Your task to perform on an android device: Open Wikipedia Image 0: 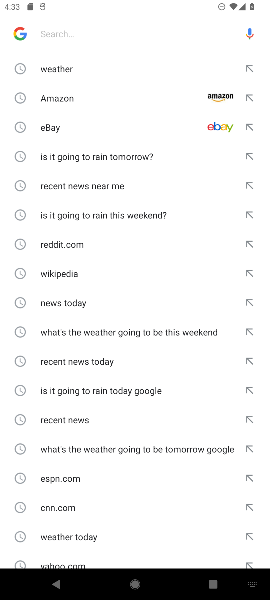
Step 0: press home button
Your task to perform on an android device: Open Wikipedia Image 1: 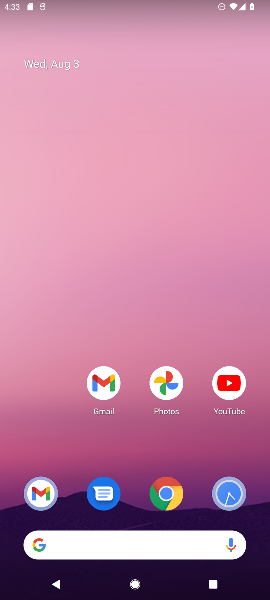
Step 1: drag from (37, 428) to (62, 115)
Your task to perform on an android device: Open Wikipedia Image 2: 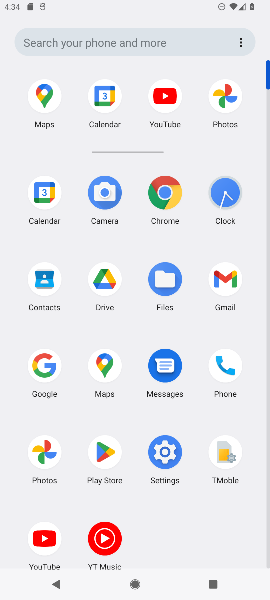
Step 2: click (171, 199)
Your task to perform on an android device: Open Wikipedia Image 3: 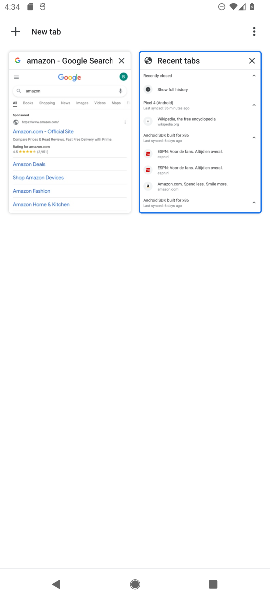
Step 3: press back button
Your task to perform on an android device: Open Wikipedia Image 4: 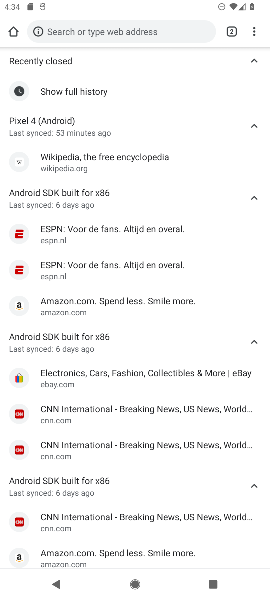
Step 4: click (173, 32)
Your task to perform on an android device: Open Wikipedia Image 5: 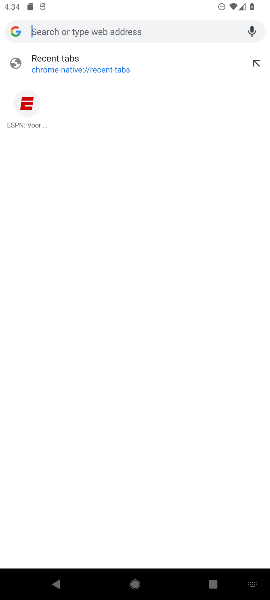
Step 5: type "wikipedia"
Your task to perform on an android device: Open Wikipedia Image 6: 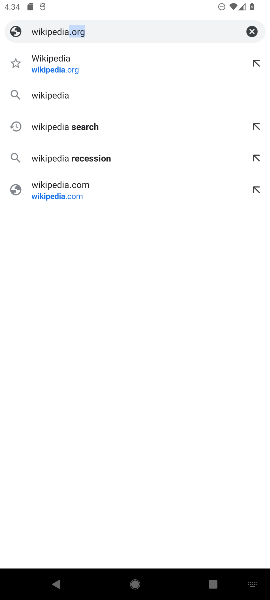
Step 6: click (79, 73)
Your task to perform on an android device: Open Wikipedia Image 7: 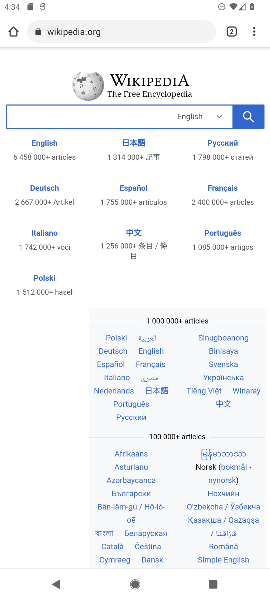
Step 7: task complete